Your task to perform on an android device: delete browsing data in the chrome app Image 0: 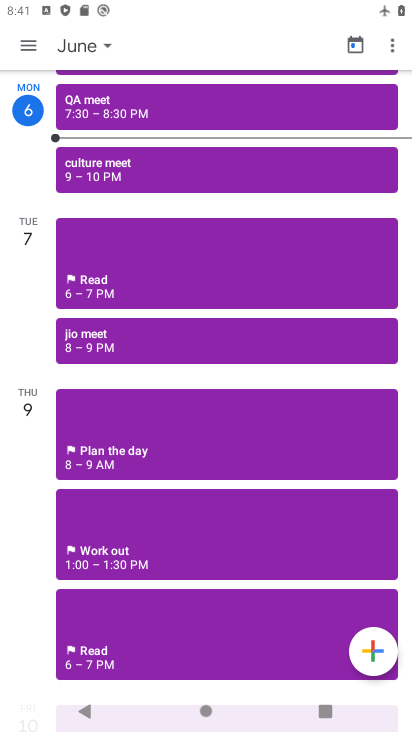
Step 0: press home button
Your task to perform on an android device: delete browsing data in the chrome app Image 1: 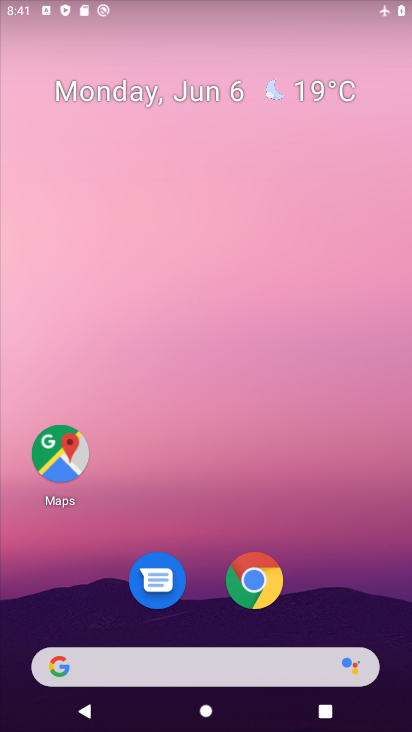
Step 1: drag from (305, 668) to (363, 39)
Your task to perform on an android device: delete browsing data in the chrome app Image 2: 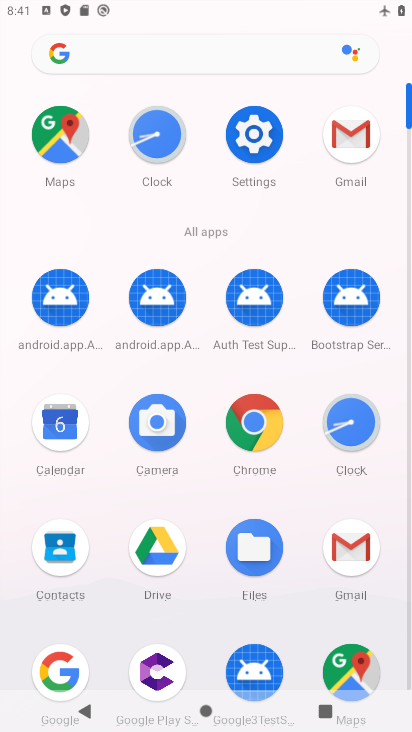
Step 2: click (243, 429)
Your task to perform on an android device: delete browsing data in the chrome app Image 3: 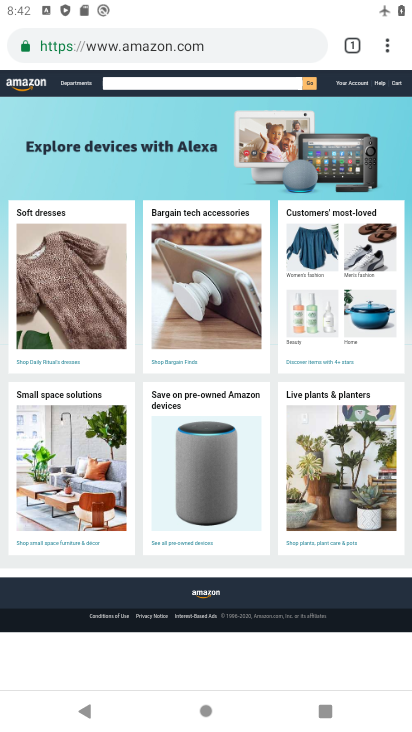
Step 3: drag from (386, 47) to (259, 255)
Your task to perform on an android device: delete browsing data in the chrome app Image 4: 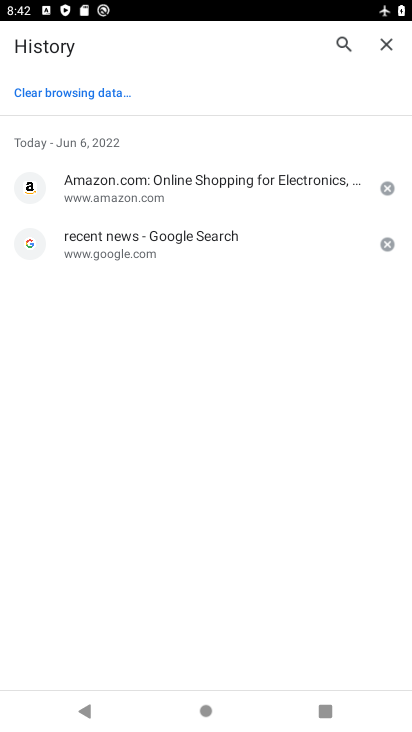
Step 4: click (82, 86)
Your task to perform on an android device: delete browsing data in the chrome app Image 5: 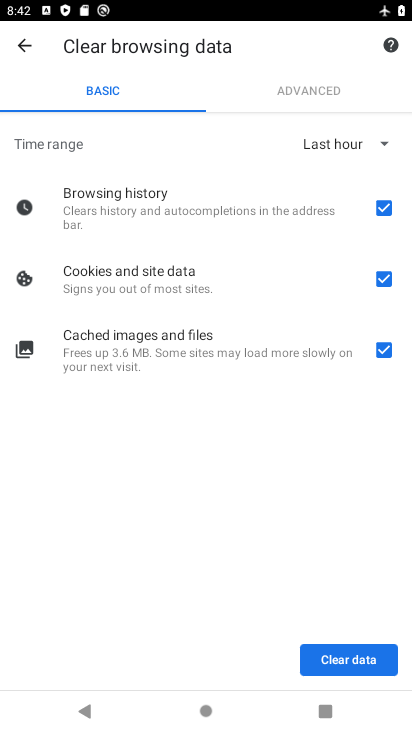
Step 5: click (371, 651)
Your task to perform on an android device: delete browsing data in the chrome app Image 6: 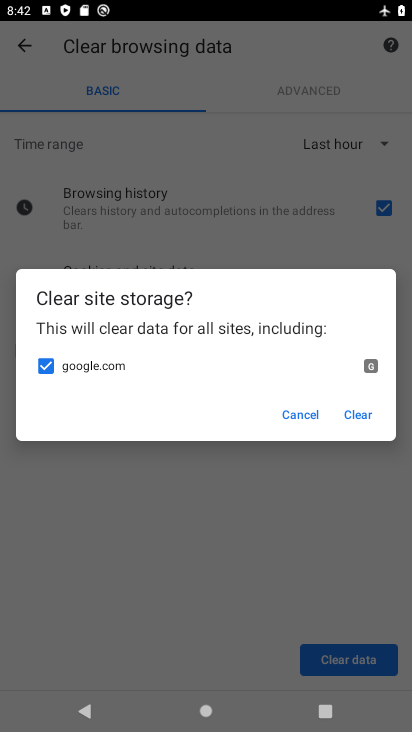
Step 6: click (354, 411)
Your task to perform on an android device: delete browsing data in the chrome app Image 7: 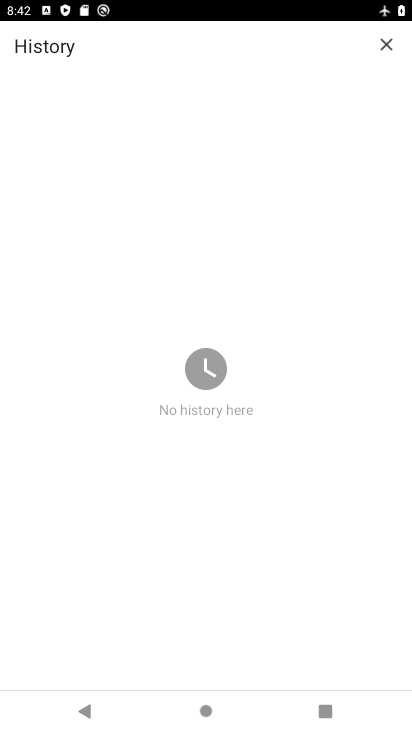
Step 7: task complete